Your task to perform on an android device: empty trash in the gmail app Image 0: 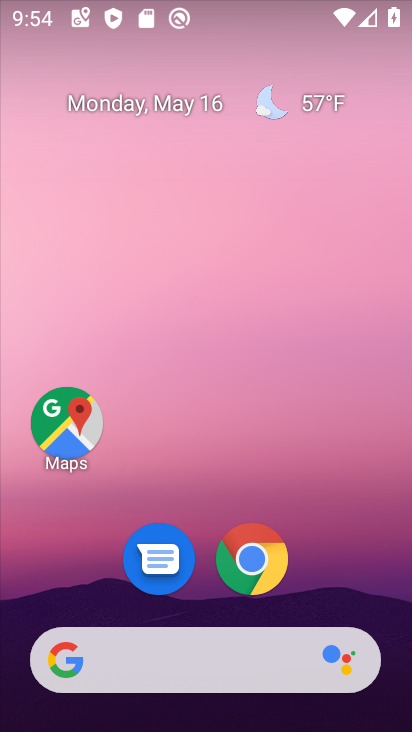
Step 0: press home button
Your task to perform on an android device: empty trash in the gmail app Image 1: 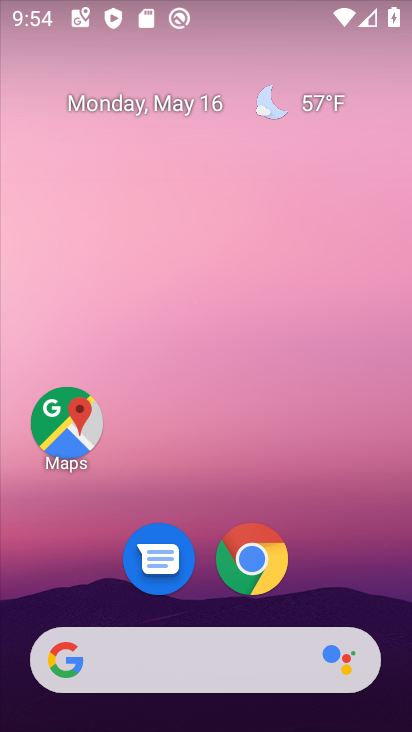
Step 1: drag from (364, 552) to (277, 137)
Your task to perform on an android device: empty trash in the gmail app Image 2: 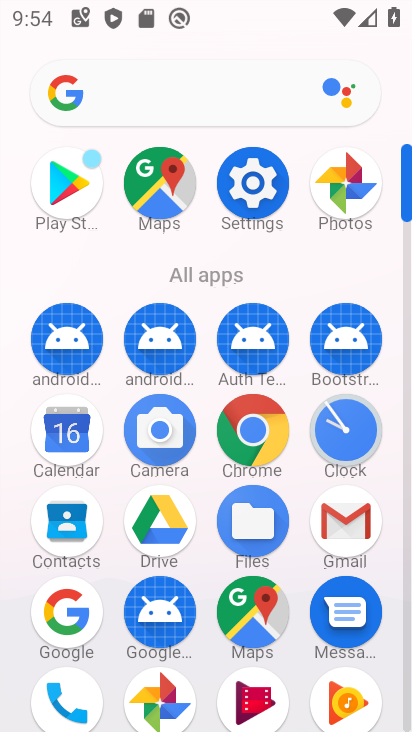
Step 2: click (338, 519)
Your task to perform on an android device: empty trash in the gmail app Image 3: 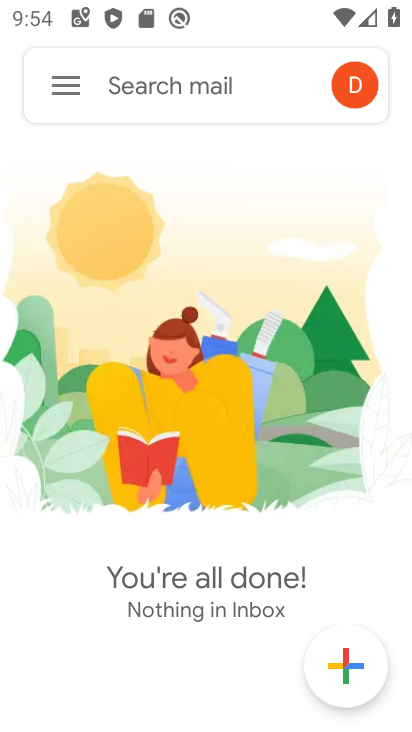
Step 3: click (50, 75)
Your task to perform on an android device: empty trash in the gmail app Image 4: 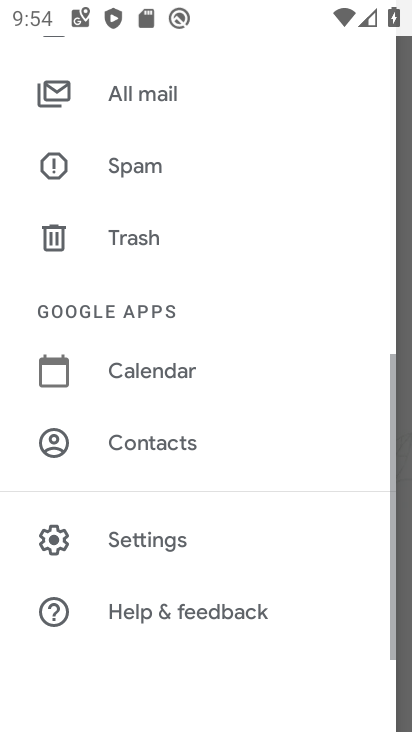
Step 4: click (160, 247)
Your task to perform on an android device: empty trash in the gmail app Image 5: 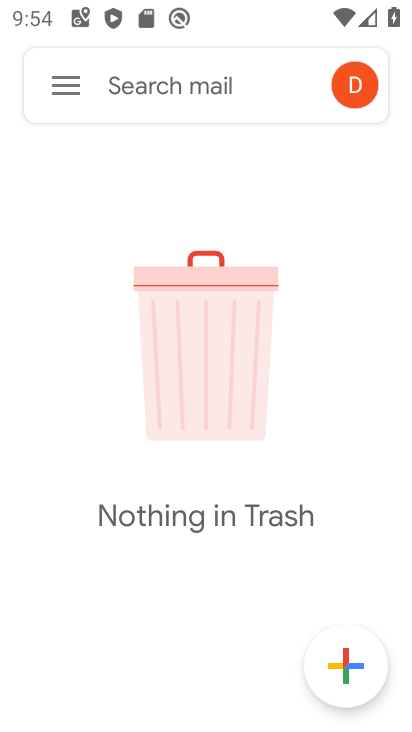
Step 5: task complete